Your task to perform on an android device: Open ESPN.com Image 0: 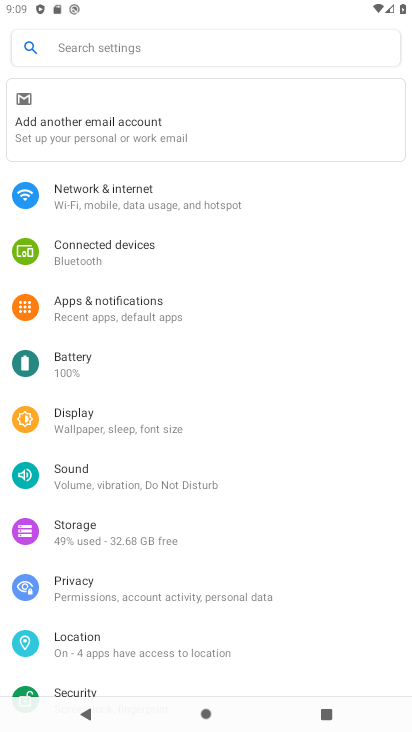
Step 0: press home button
Your task to perform on an android device: Open ESPN.com Image 1: 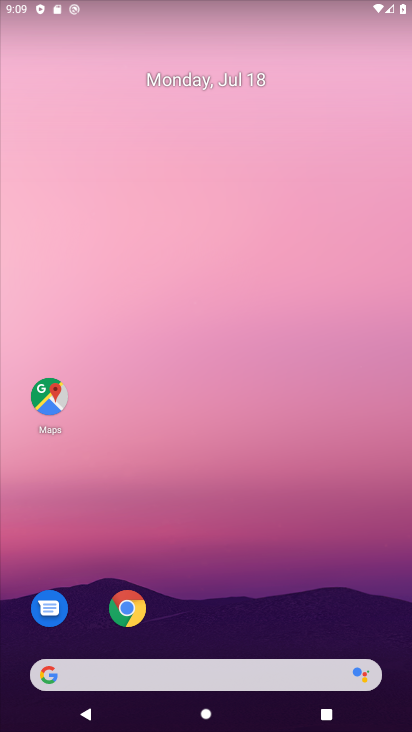
Step 1: click (118, 614)
Your task to perform on an android device: Open ESPN.com Image 2: 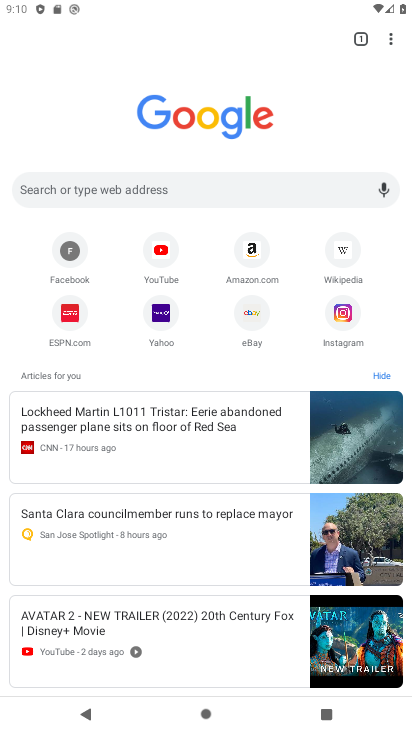
Step 2: click (77, 338)
Your task to perform on an android device: Open ESPN.com Image 3: 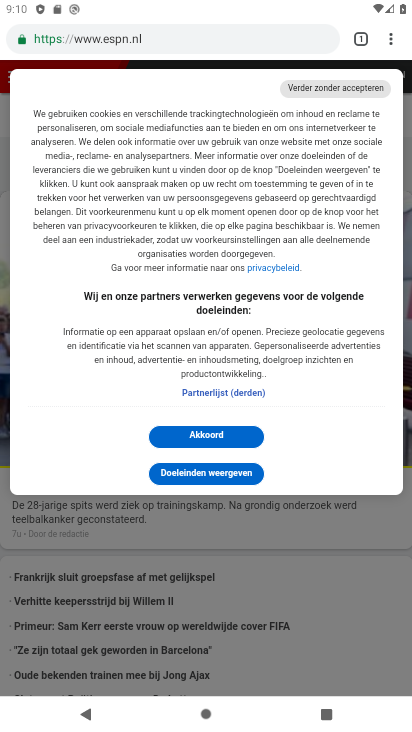
Step 3: task complete